Your task to perform on an android device: add a contact in the contacts app Image 0: 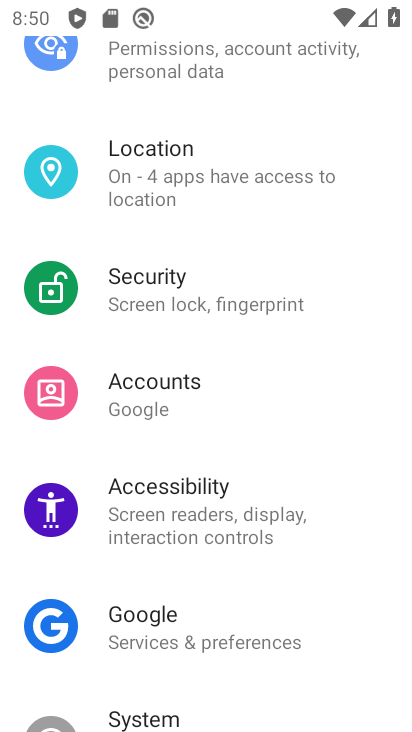
Step 0: press home button
Your task to perform on an android device: add a contact in the contacts app Image 1: 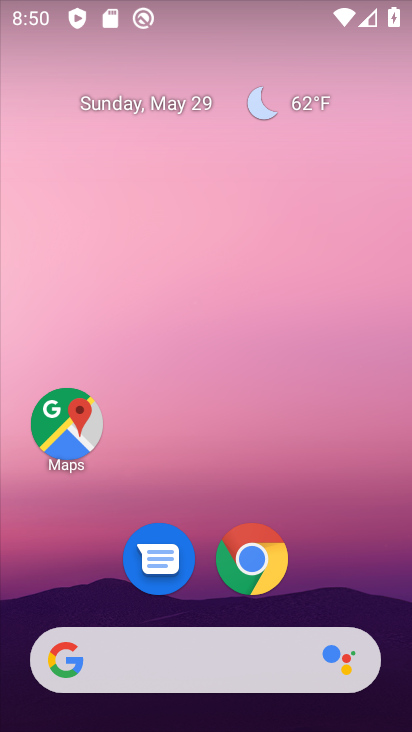
Step 1: drag from (321, 597) to (295, 194)
Your task to perform on an android device: add a contact in the contacts app Image 2: 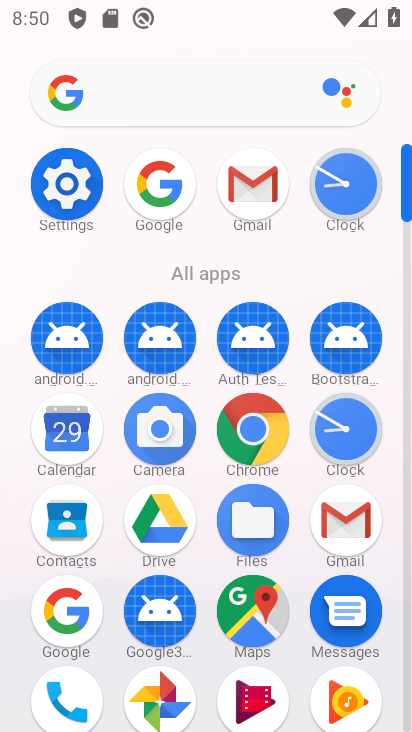
Step 2: drag from (211, 647) to (218, 351)
Your task to perform on an android device: add a contact in the contacts app Image 3: 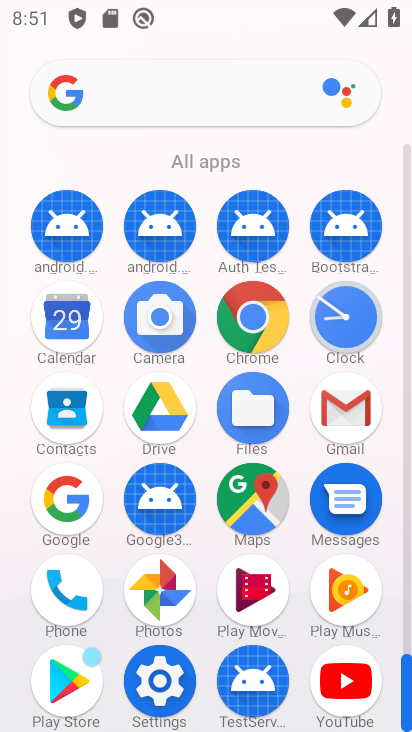
Step 3: click (72, 583)
Your task to perform on an android device: add a contact in the contacts app Image 4: 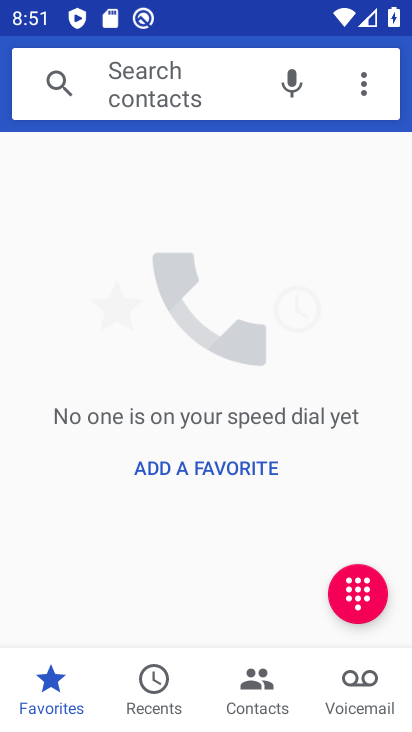
Step 4: click (215, 462)
Your task to perform on an android device: add a contact in the contacts app Image 5: 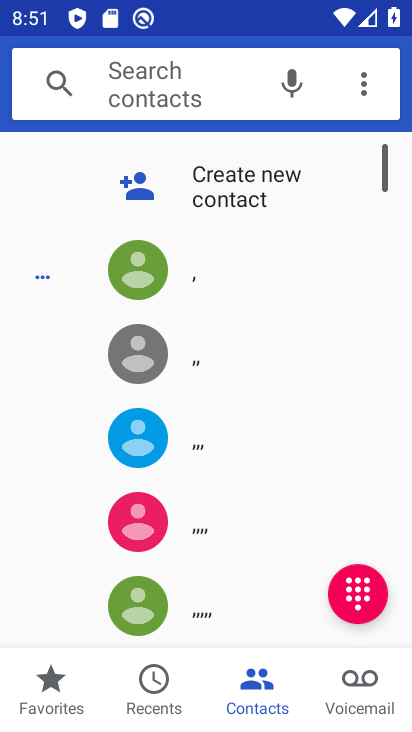
Step 5: click (223, 170)
Your task to perform on an android device: add a contact in the contacts app Image 6: 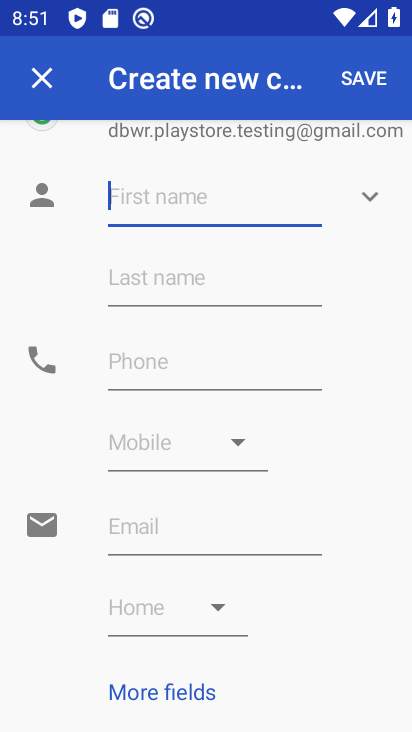
Step 6: click (214, 185)
Your task to perform on an android device: add a contact in the contacts app Image 7: 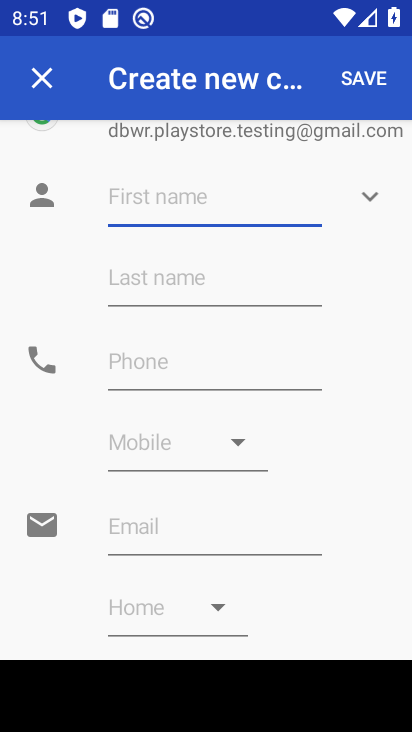
Step 7: type "hghghghghghghjjkkkk"
Your task to perform on an android device: add a contact in the contacts app Image 8: 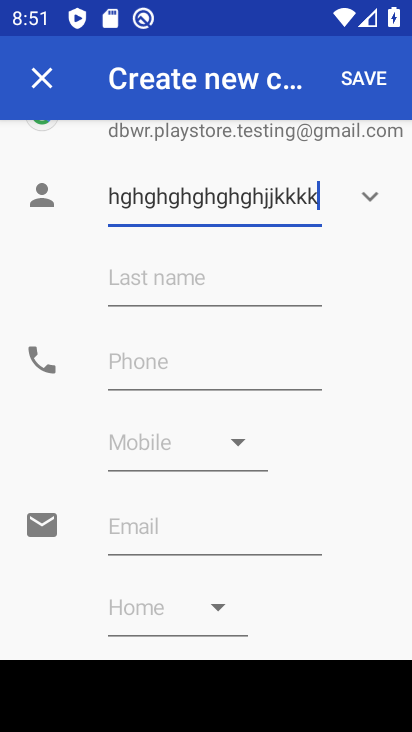
Step 8: click (178, 361)
Your task to perform on an android device: add a contact in the contacts app Image 9: 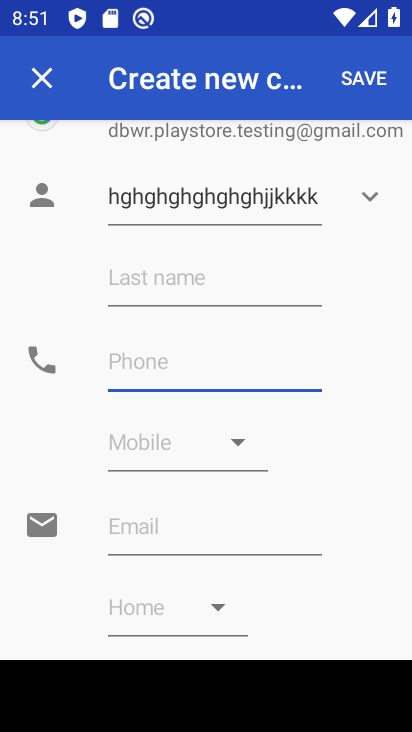
Step 9: type "656565655655656"
Your task to perform on an android device: add a contact in the contacts app Image 10: 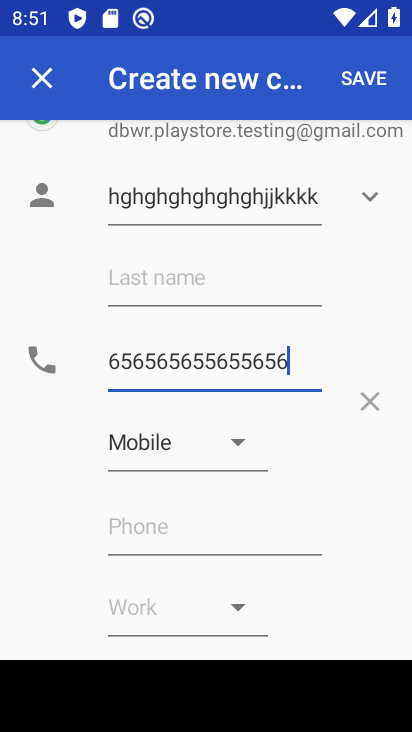
Step 10: click (368, 78)
Your task to perform on an android device: add a contact in the contacts app Image 11: 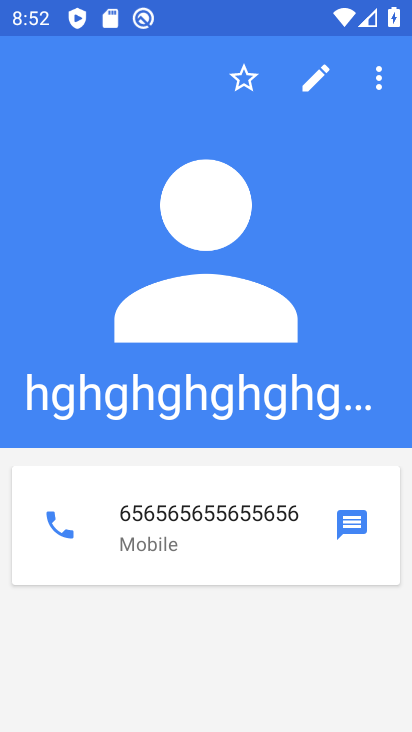
Step 11: task complete